Your task to perform on an android device: Go to network settings Image 0: 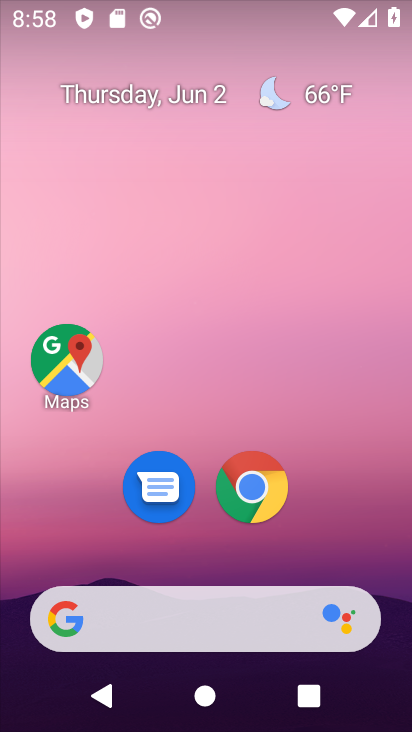
Step 0: drag from (225, 728) to (225, 166)
Your task to perform on an android device: Go to network settings Image 1: 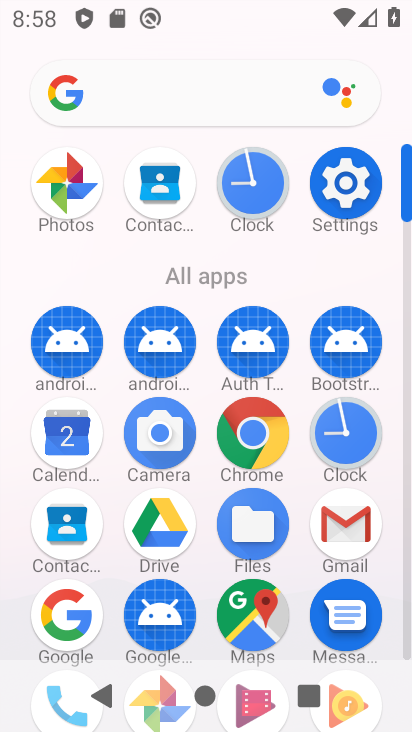
Step 1: click (347, 188)
Your task to perform on an android device: Go to network settings Image 2: 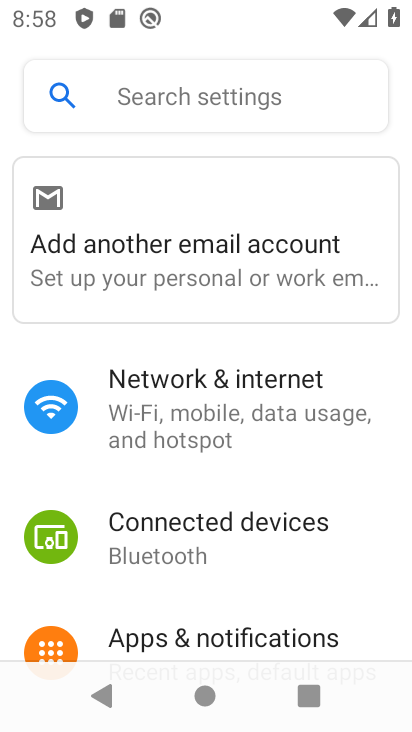
Step 2: click (167, 422)
Your task to perform on an android device: Go to network settings Image 3: 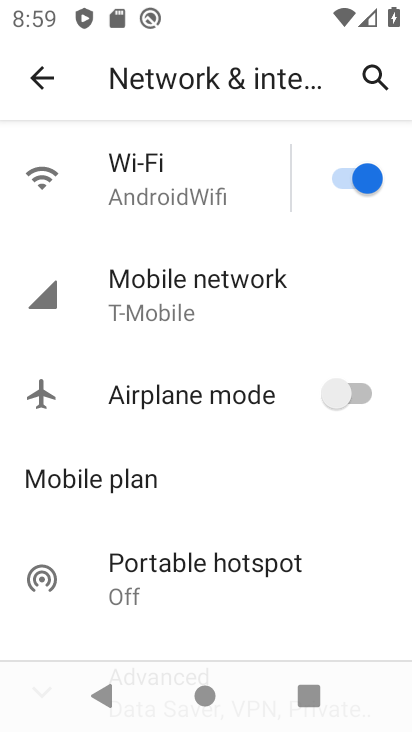
Step 3: click (199, 304)
Your task to perform on an android device: Go to network settings Image 4: 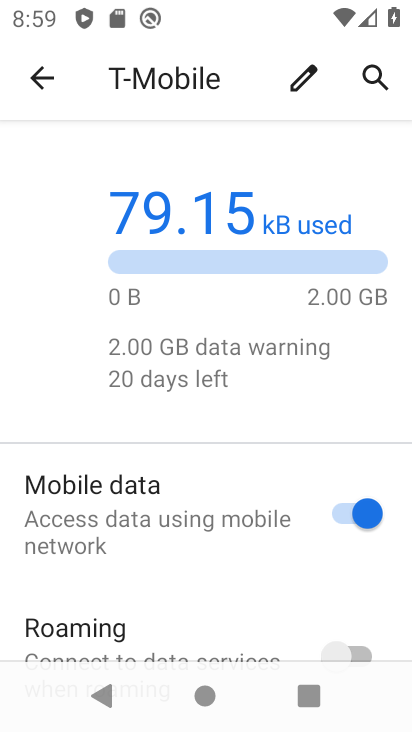
Step 4: task complete